Your task to perform on an android device: Open Google Image 0: 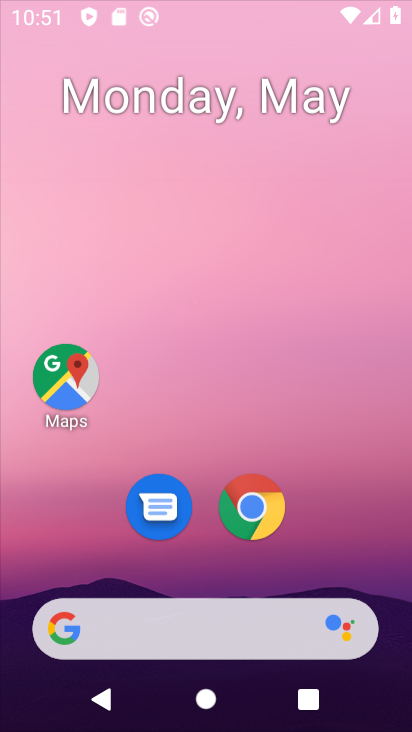
Step 0: click (363, 123)
Your task to perform on an android device: Open Google Image 1: 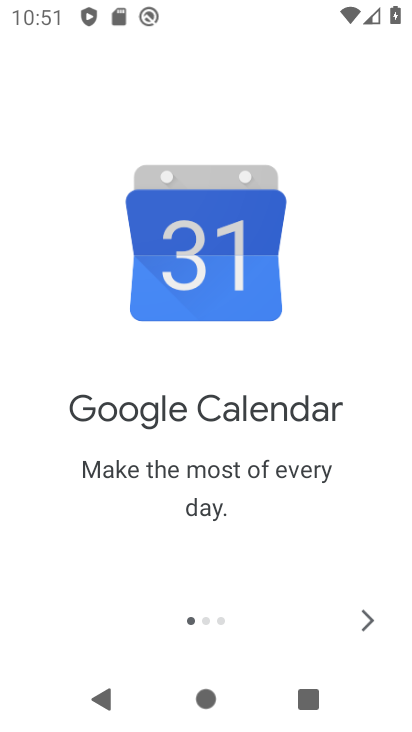
Step 1: press home button
Your task to perform on an android device: Open Google Image 2: 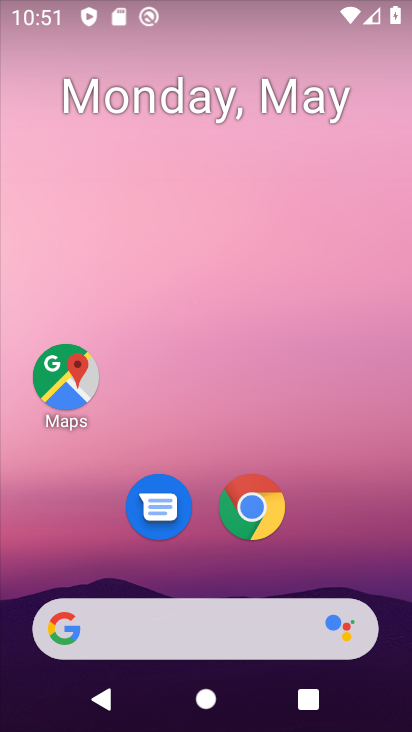
Step 2: drag from (335, 526) to (302, 149)
Your task to perform on an android device: Open Google Image 3: 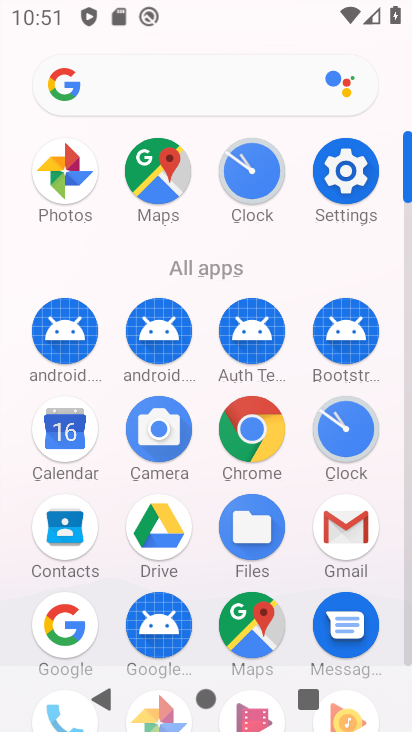
Step 3: click (89, 633)
Your task to perform on an android device: Open Google Image 4: 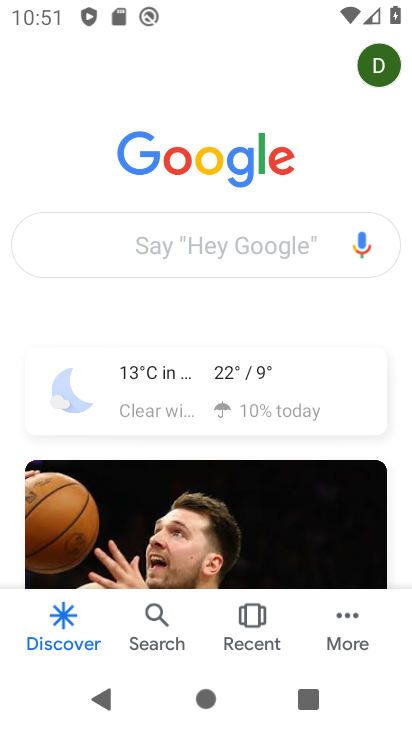
Step 4: task complete